Your task to perform on an android device: Open maps Image 0: 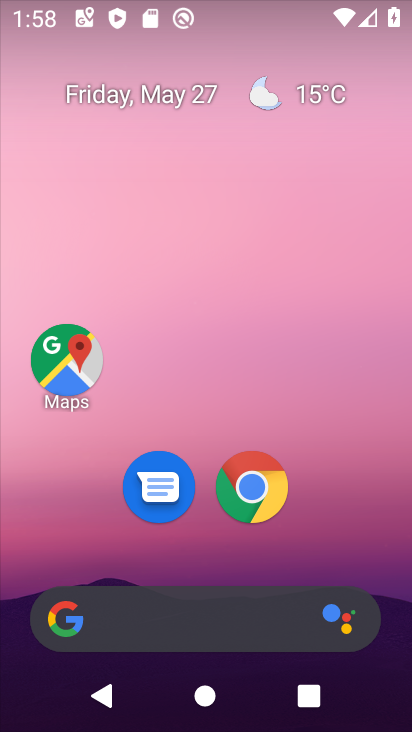
Step 0: click (87, 341)
Your task to perform on an android device: Open maps Image 1: 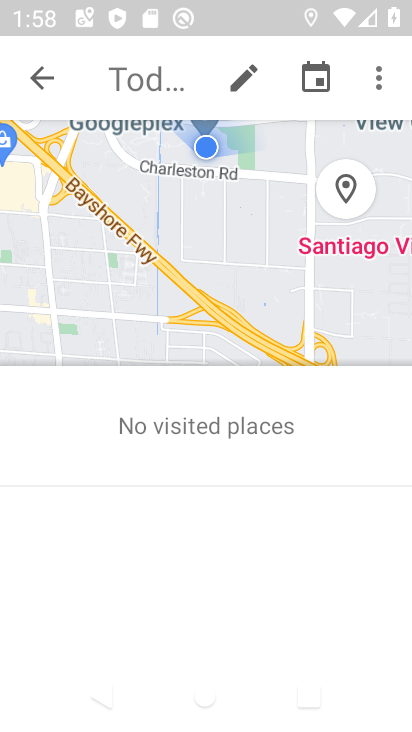
Step 1: task complete